Your task to perform on an android device: Go to Reddit.com Image 0: 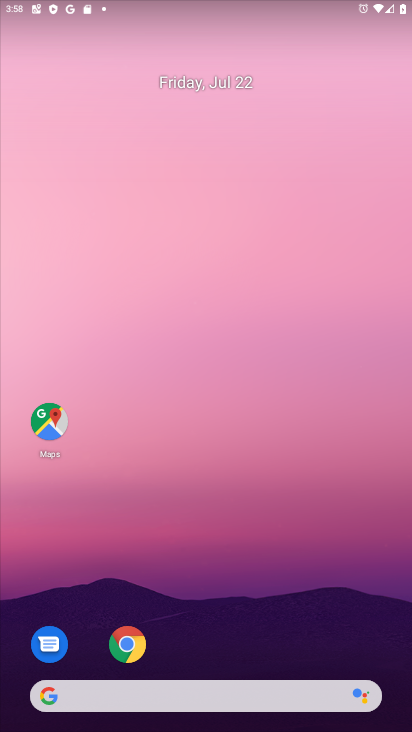
Step 0: click (217, 688)
Your task to perform on an android device: Go to Reddit.com Image 1: 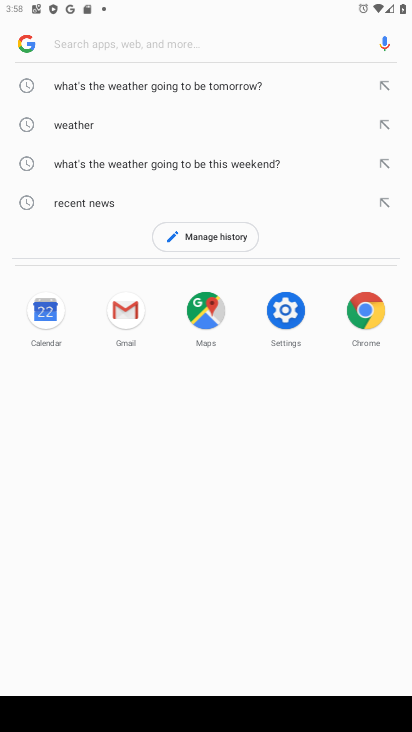
Step 1: type " Reddit.com"
Your task to perform on an android device: Go to Reddit.com Image 2: 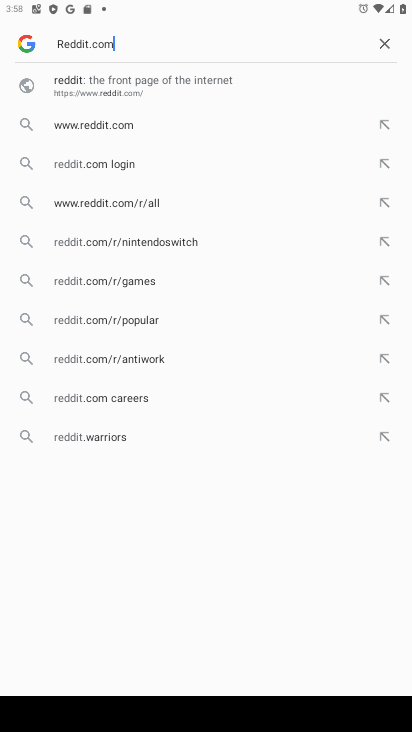
Step 2: press enter
Your task to perform on an android device: Go to Reddit.com Image 3: 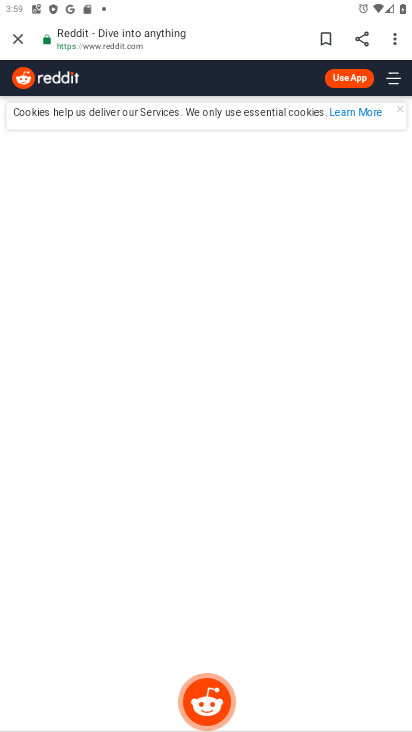
Step 3: task complete